Your task to perform on an android device: delete the emails in spam in the gmail app Image 0: 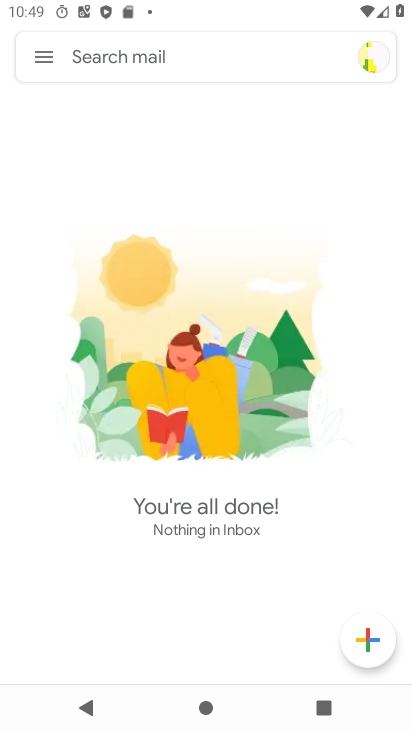
Step 0: click (42, 67)
Your task to perform on an android device: delete the emails in spam in the gmail app Image 1: 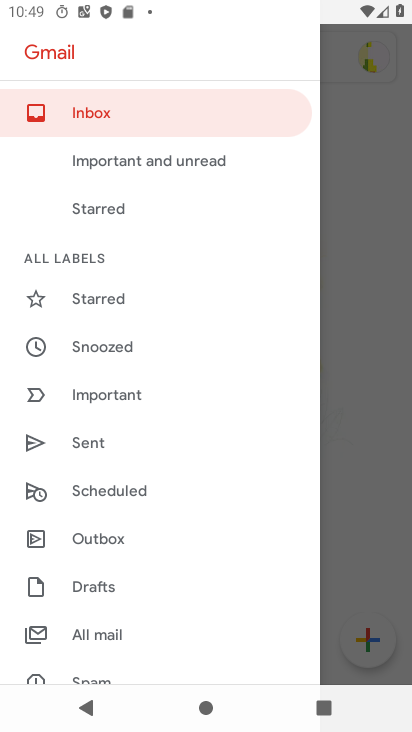
Step 1: drag from (130, 562) to (169, 283)
Your task to perform on an android device: delete the emails in spam in the gmail app Image 2: 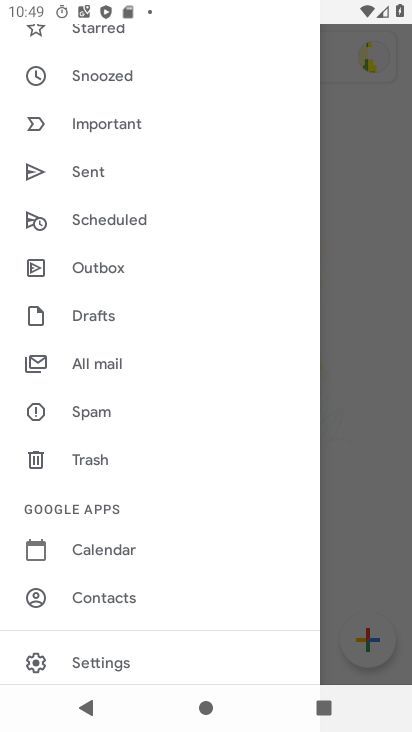
Step 2: click (130, 402)
Your task to perform on an android device: delete the emails in spam in the gmail app Image 3: 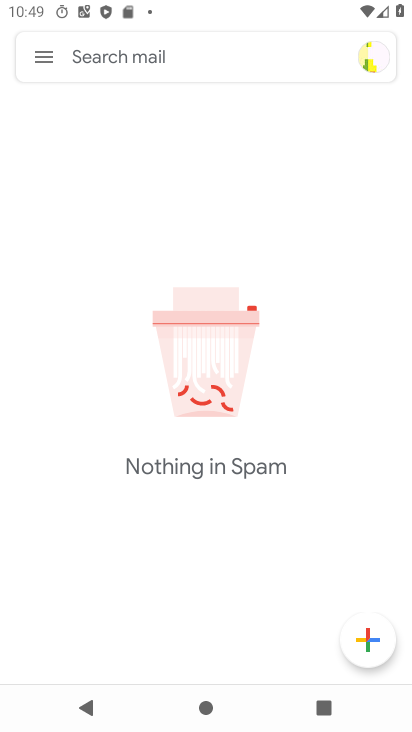
Step 3: task complete